Your task to perform on an android device: Open calendar and show me the second week of next month Image 0: 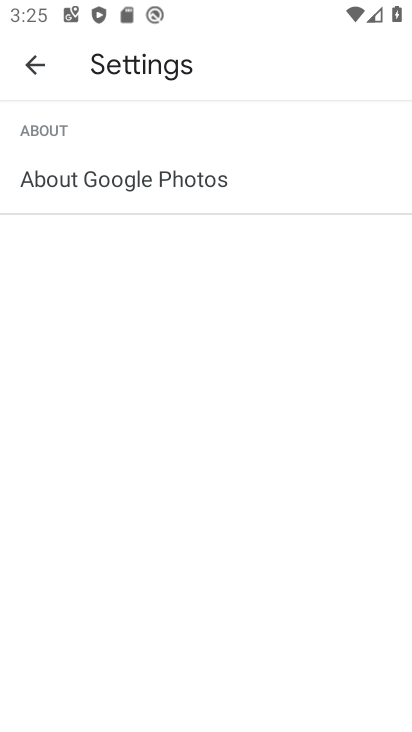
Step 0: press home button
Your task to perform on an android device: Open calendar and show me the second week of next month Image 1: 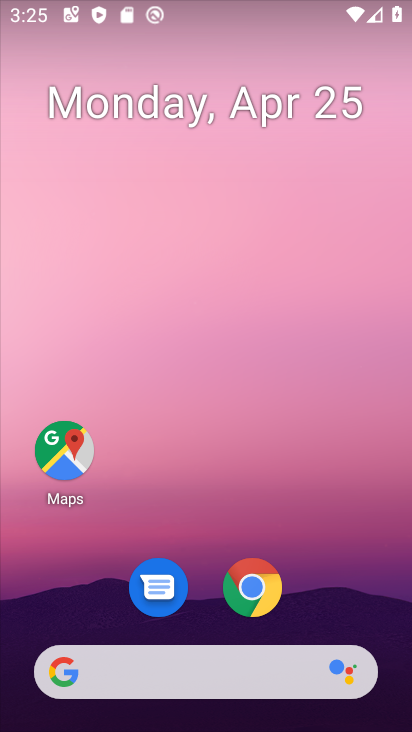
Step 1: drag from (209, 606) to (227, 242)
Your task to perform on an android device: Open calendar and show me the second week of next month Image 2: 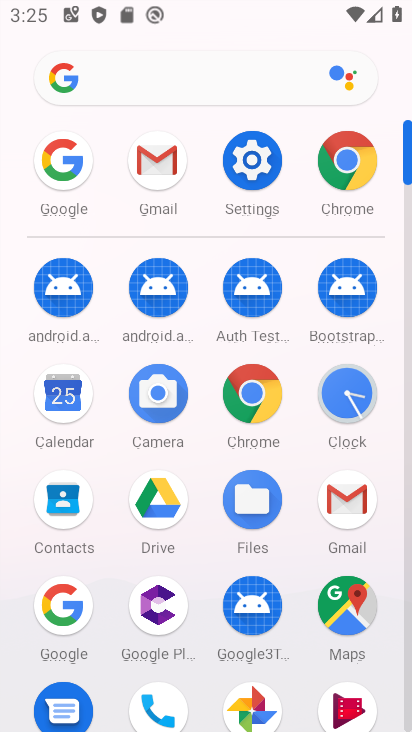
Step 2: click (57, 406)
Your task to perform on an android device: Open calendar and show me the second week of next month Image 3: 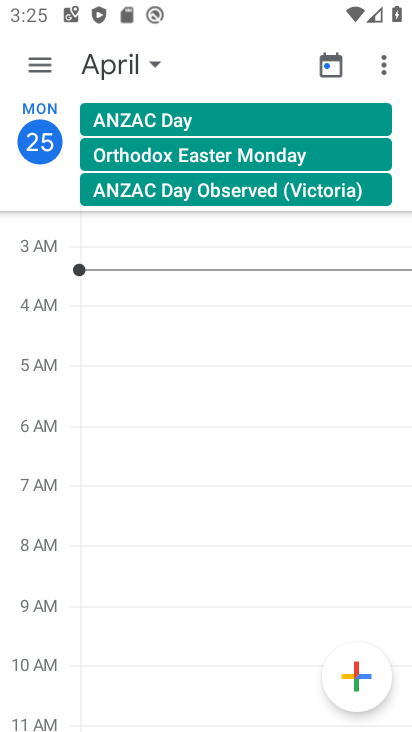
Step 3: click (148, 61)
Your task to perform on an android device: Open calendar and show me the second week of next month Image 4: 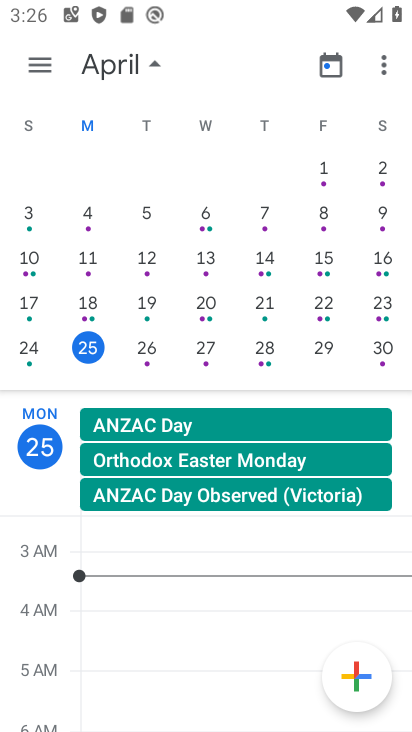
Step 4: drag from (378, 373) to (31, 378)
Your task to perform on an android device: Open calendar and show me the second week of next month Image 5: 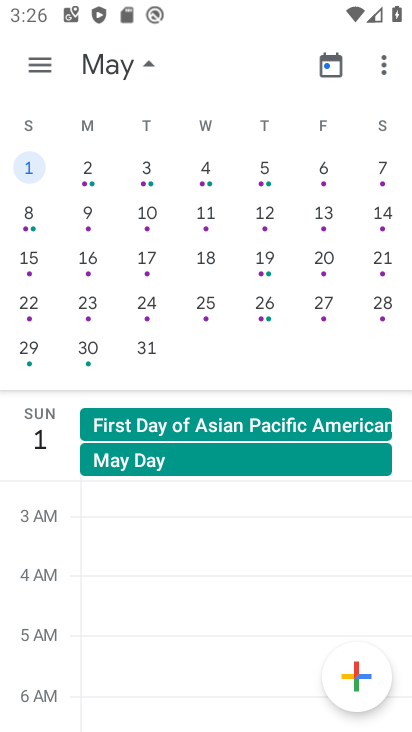
Step 5: click (146, 214)
Your task to perform on an android device: Open calendar and show me the second week of next month Image 6: 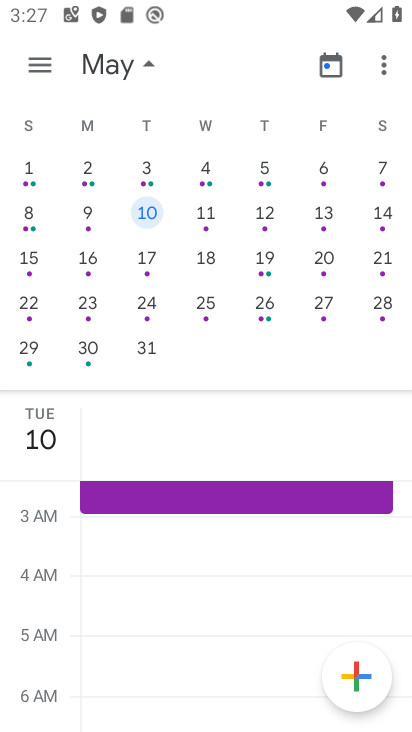
Step 6: task complete